Your task to perform on an android device: Go to internet settings Image 0: 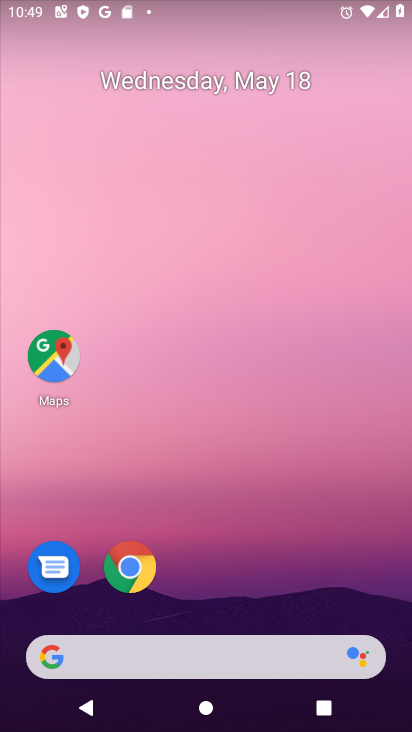
Step 0: drag from (204, 672) to (189, 192)
Your task to perform on an android device: Go to internet settings Image 1: 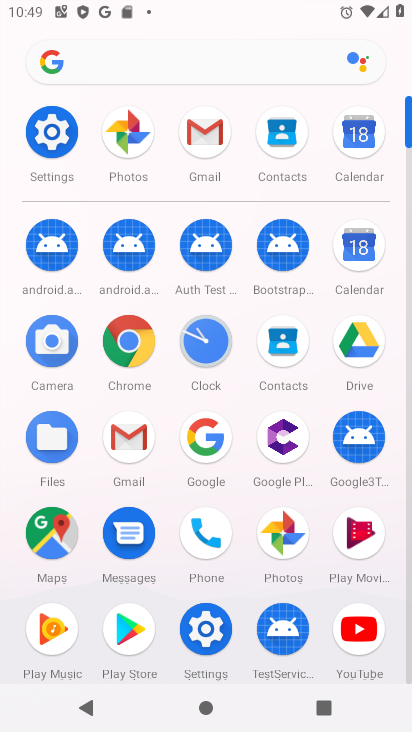
Step 1: click (50, 126)
Your task to perform on an android device: Go to internet settings Image 2: 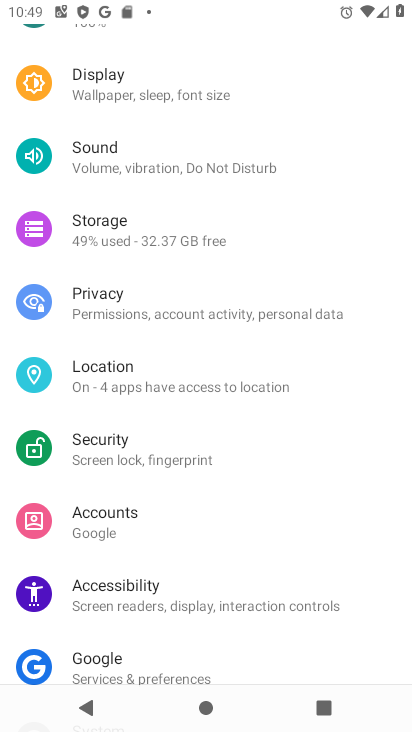
Step 2: drag from (172, 50) to (191, 479)
Your task to perform on an android device: Go to internet settings Image 3: 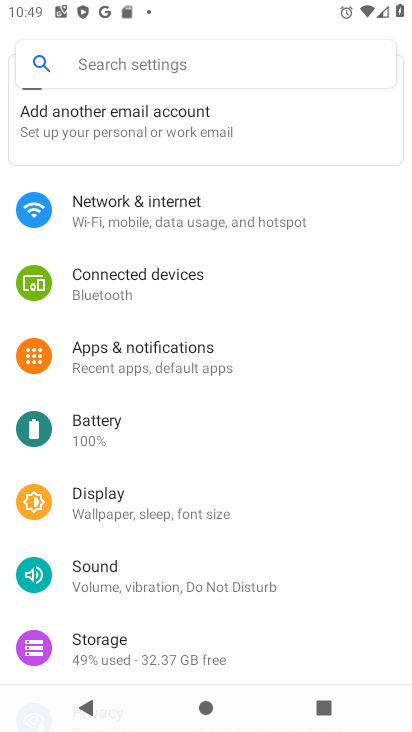
Step 3: click (146, 207)
Your task to perform on an android device: Go to internet settings Image 4: 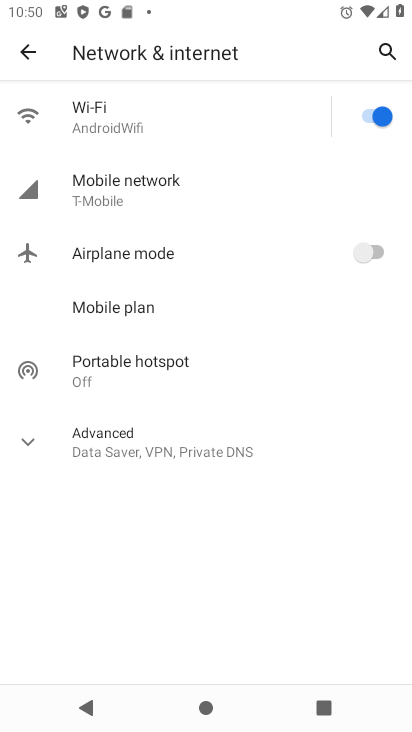
Step 4: task complete